Your task to perform on an android device: empty trash in google photos Image 0: 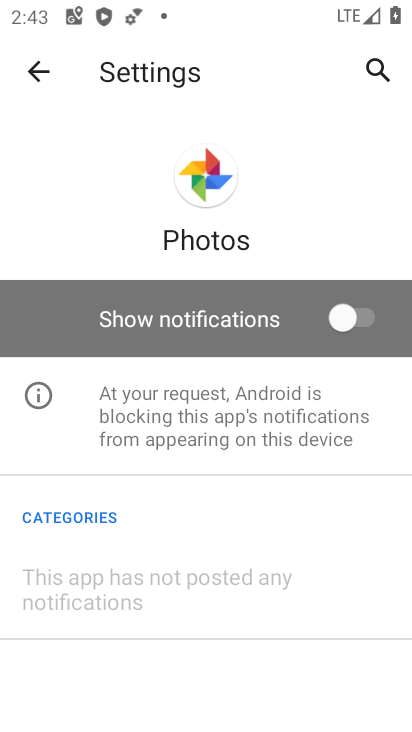
Step 0: click (37, 79)
Your task to perform on an android device: empty trash in google photos Image 1: 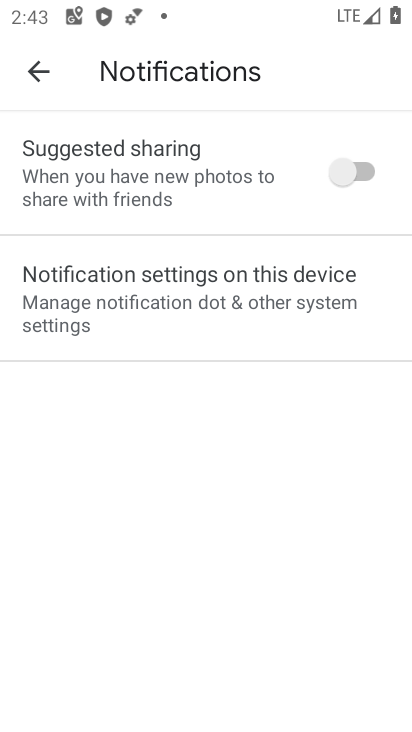
Step 1: click (37, 79)
Your task to perform on an android device: empty trash in google photos Image 2: 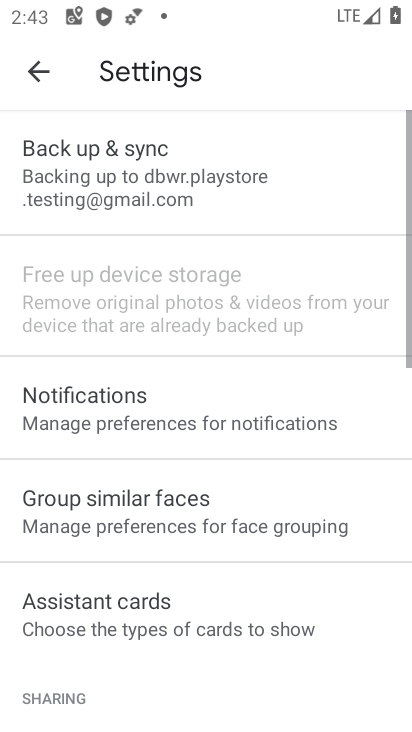
Step 2: click (37, 78)
Your task to perform on an android device: empty trash in google photos Image 3: 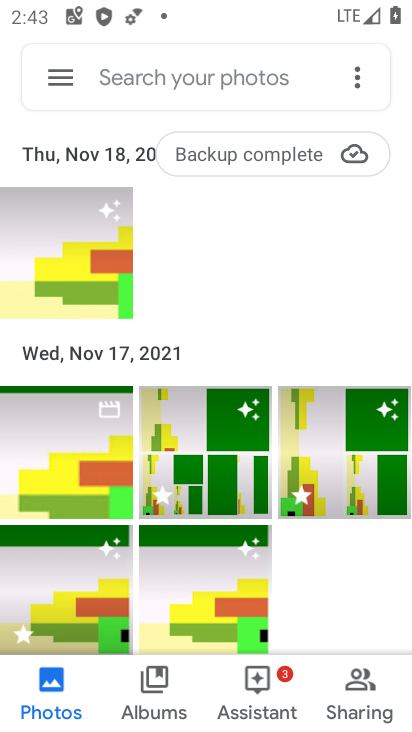
Step 3: click (37, 78)
Your task to perform on an android device: empty trash in google photos Image 4: 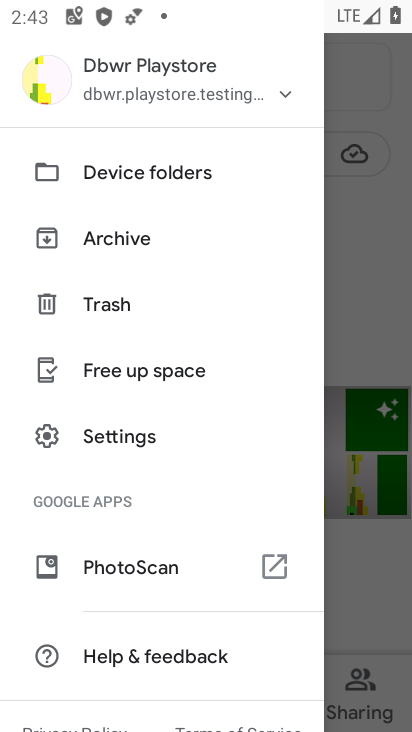
Step 4: click (155, 312)
Your task to perform on an android device: empty trash in google photos Image 5: 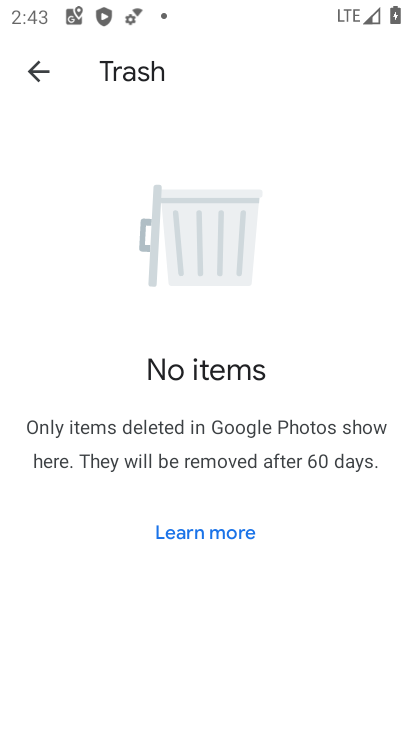
Step 5: task complete